Your task to perform on an android device: Open notification settings Image 0: 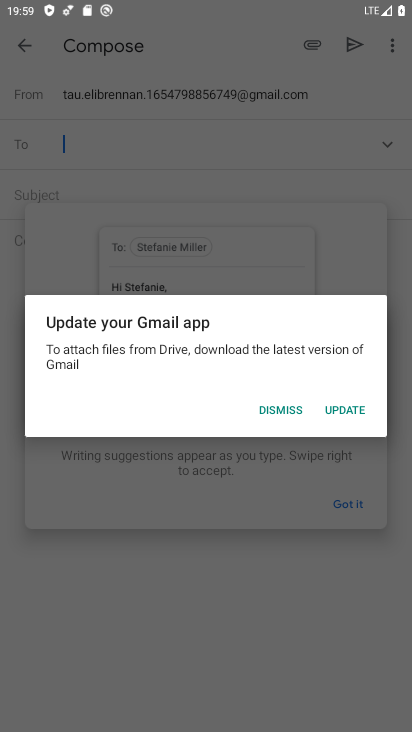
Step 0: press home button
Your task to perform on an android device: Open notification settings Image 1: 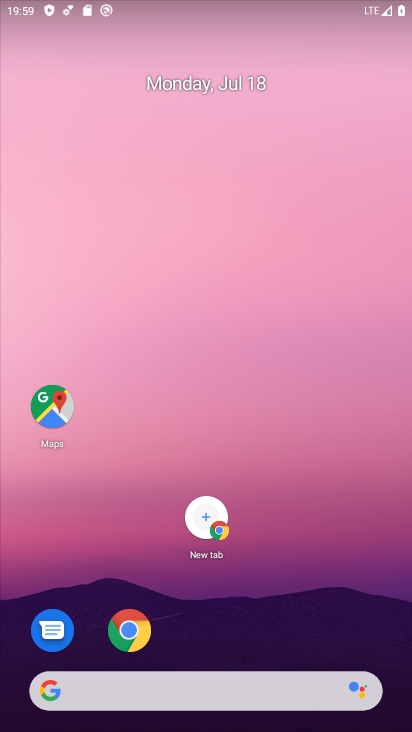
Step 1: drag from (233, 697) to (282, 357)
Your task to perform on an android device: Open notification settings Image 2: 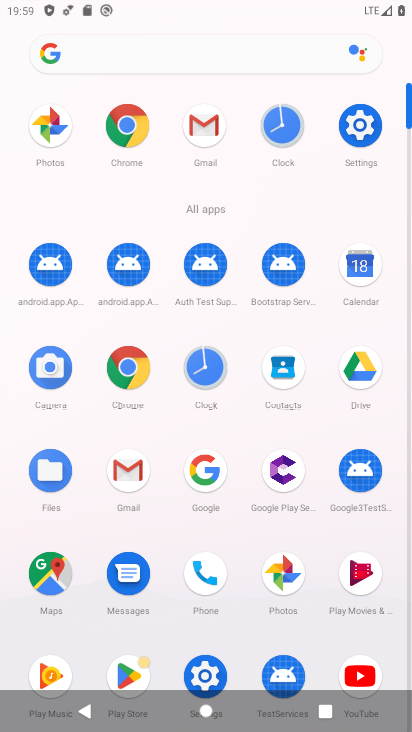
Step 2: click (383, 112)
Your task to perform on an android device: Open notification settings Image 3: 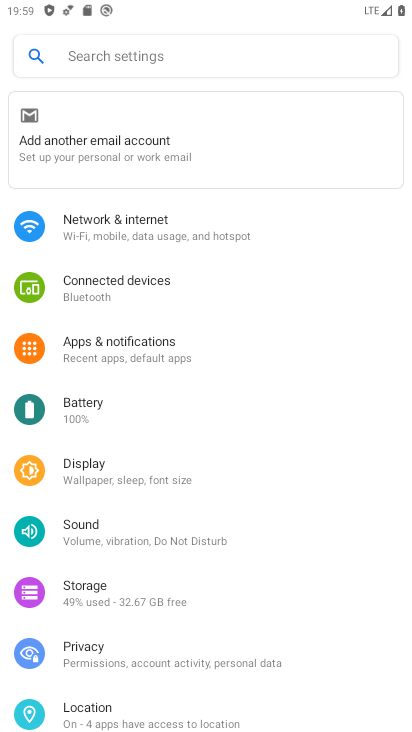
Step 3: click (107, 347)
Your task to perform on an android device: Open notification settings Image 4: 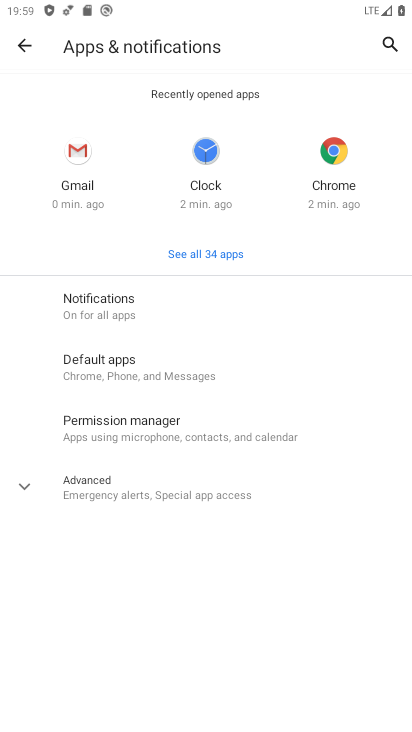
Step 4: click (113, 471)
Your task to perform on an android device: Open notification settings Image 5: 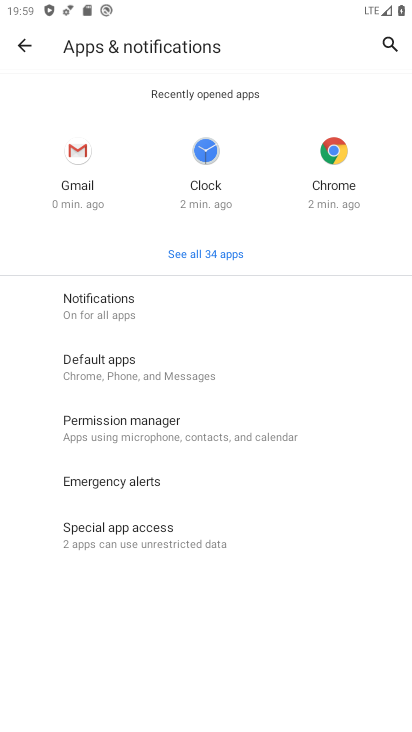
Step 5: task complete